Your task to perform on an android device: Open eBay Image 0: 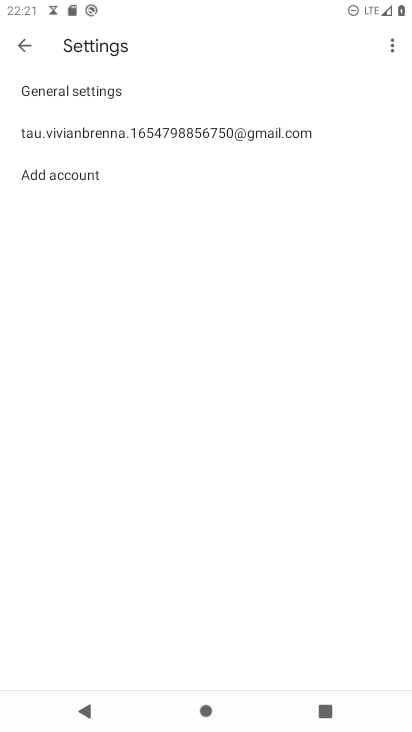
Step 0: press home button
Your task to perform on an android device: Open eBay Image 1: 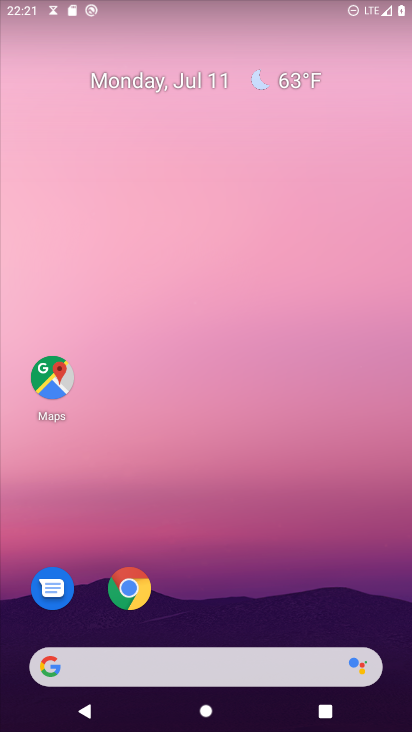
Step 1: click (136, 666)
Your task to perform on an android device: Open eBay Image 2: 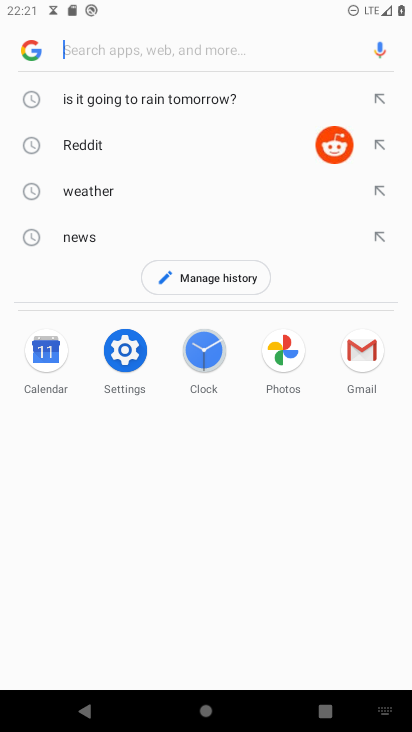
Step 2: type " eBay"
Your task to perform on an android device: Open eBay Image 3: 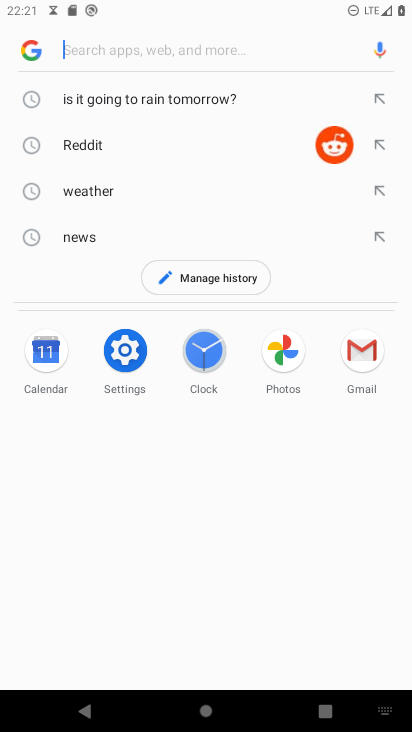
Step 3: click (115, 46)
Your task to perform on an android device: Open eBay Image 4: 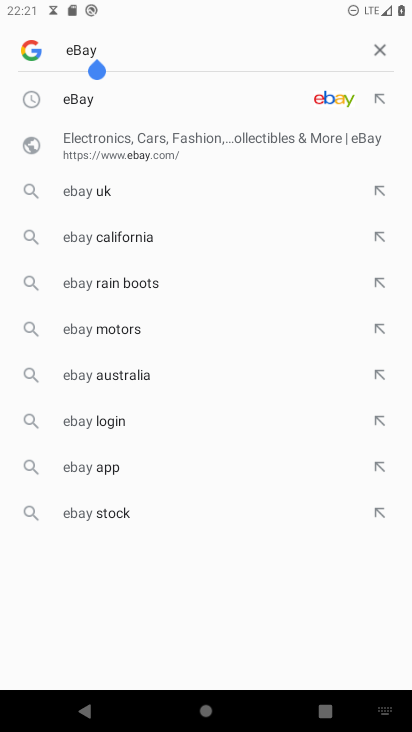
Step 4: click (76, 100)
Your task to perform on an android device: Open eBay Image 5: 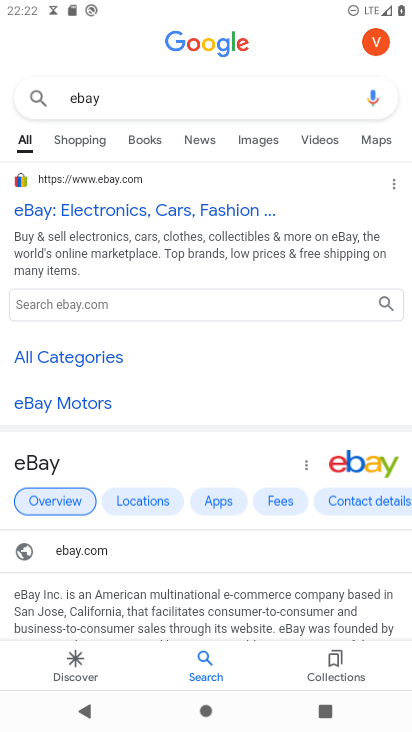
Step 5: click (108, 209)
Your task to perform on an android device: Open eBay Image 6: 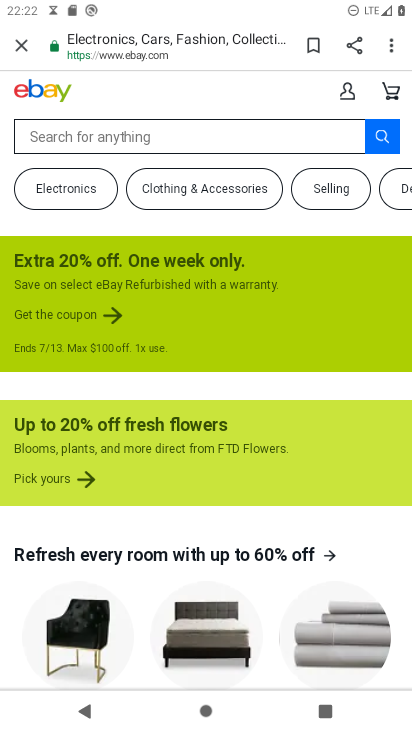
Step 6: task complete